Your task to perform on an android device: change the upload size in google photos Image 0: 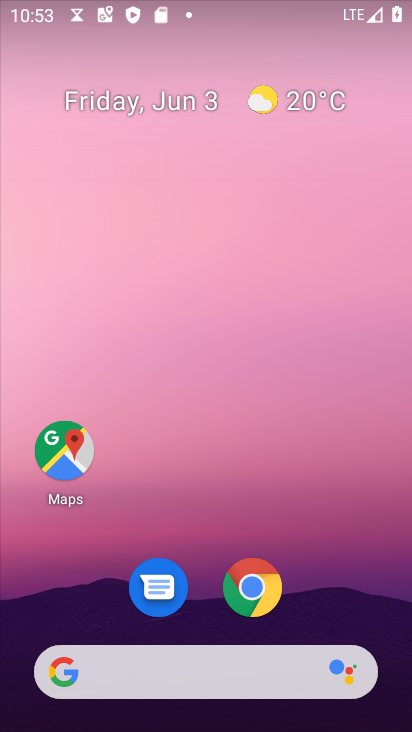
Step 0: drag from (339, 524) to (250, 13)
Your task to perform on an android device: change the upload size in google photos Image 1: 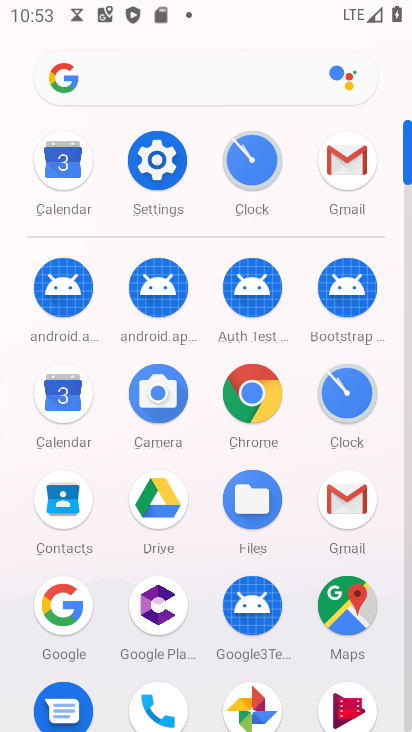
Step 1: click (267, 720)
Your task to perform on an android device: change the upload size in google photos Image 2: 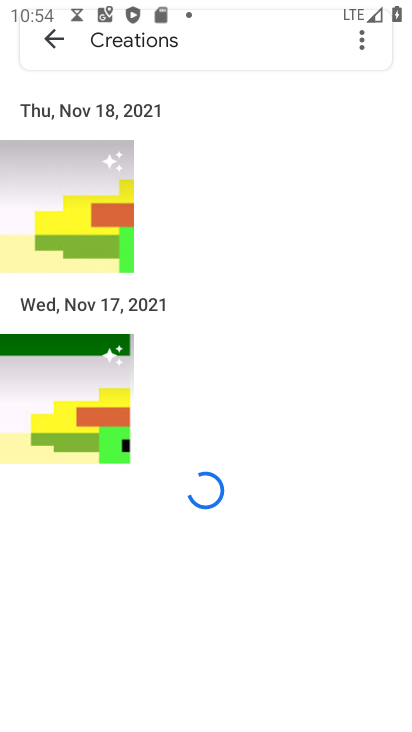
Step 2: click (54, 36)
Your task to perform on an android device: change the upload size in google photos Image 3: 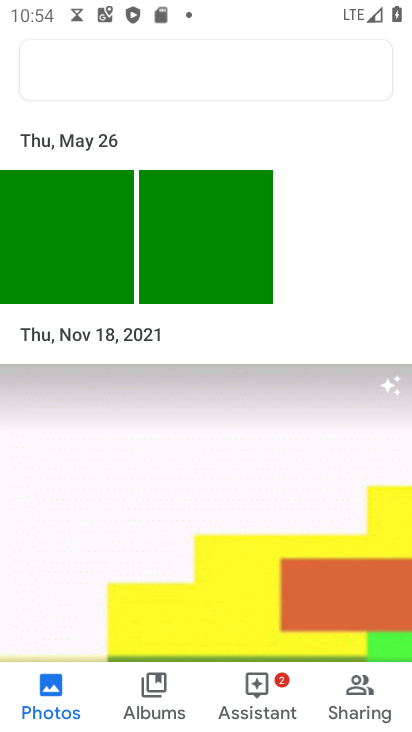
Step 3: click (50, 47)
Your task to perform on an android device: change the upload size in google photos Image 4: 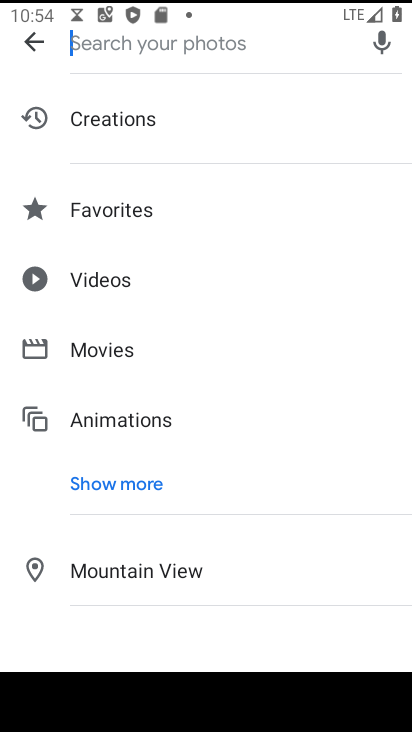
Step 4: click (35, 29)
Your task to perform on an android device: change the upload size in google photos Image 5: 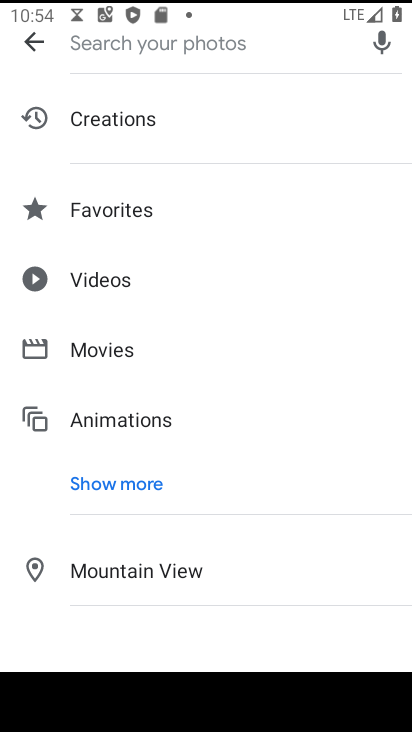
Step 5: click (37, 56)
Your task to perform on an android device: change the upload size in google photos Image 6: 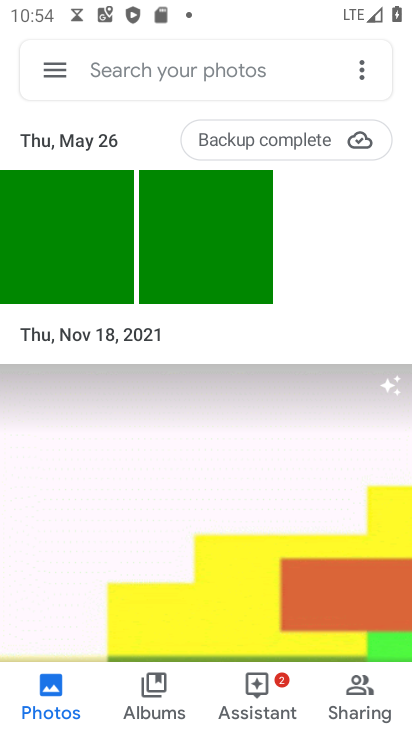
Step 6: click (60, 75)
Your task to perform on an android device: change the upload size in google photos Image 7: 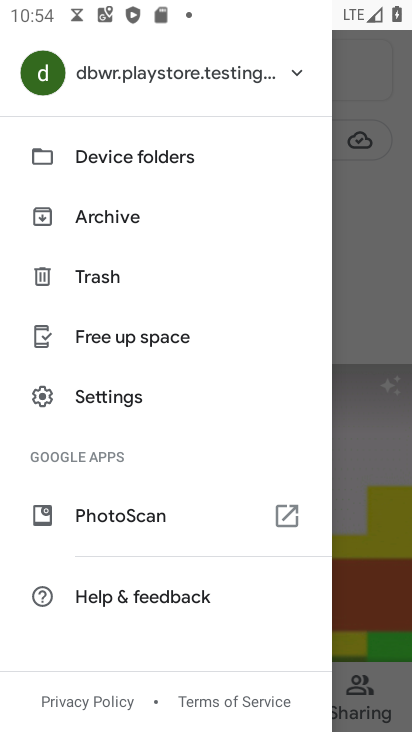
Step 7: click (172, 384)
Your task to perform on an android device: change the upload size in google photos Image 8: 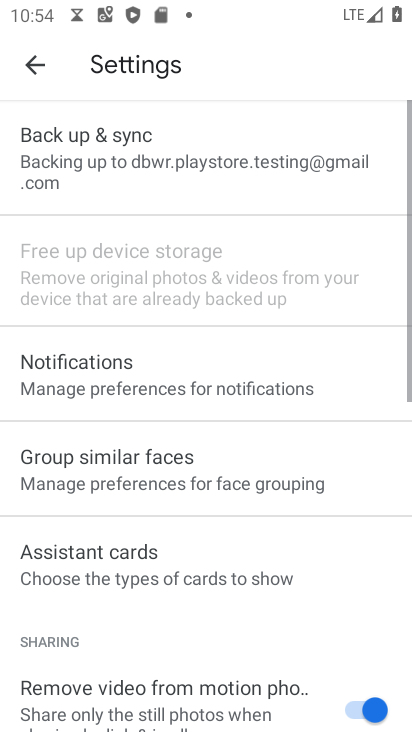
Step 8: click (132, 145)
Your task to perform on an android device: change the upload size in google photos Image 9: 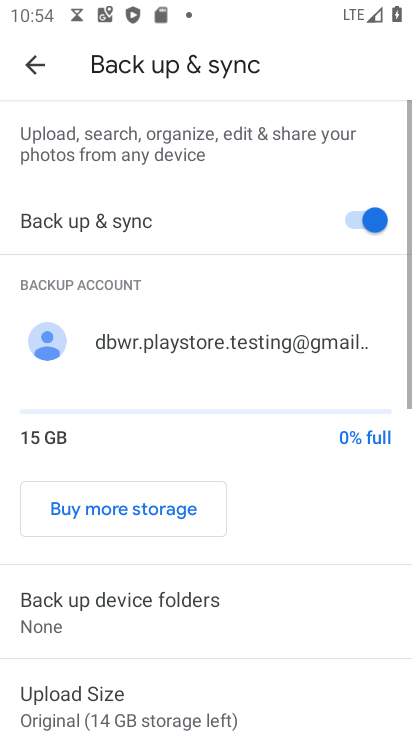
Step 9: click (185, 693)
Your task to perform on an android device: change the upload size in google photos Image 10: 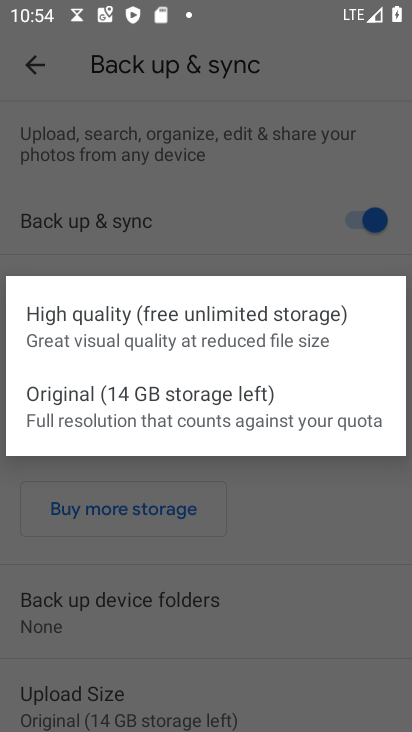
Step 10: click (152, 311)
Your task to perform on an android device: change the upload size in google photos Image 11: 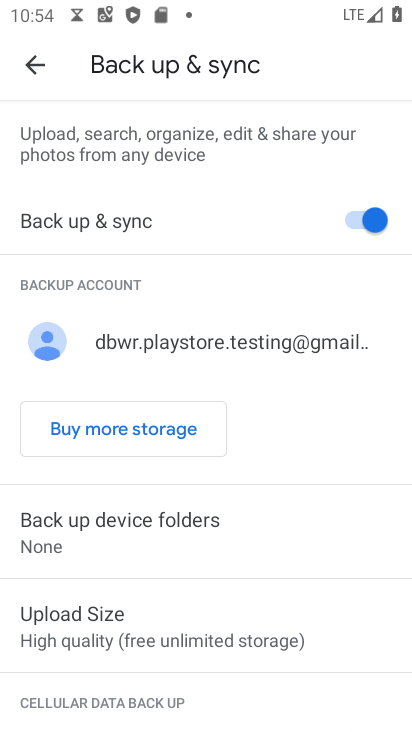
Step 11: task complete